Your task to perform on an android device: delete the emails in spam in the gmail app Image 0: 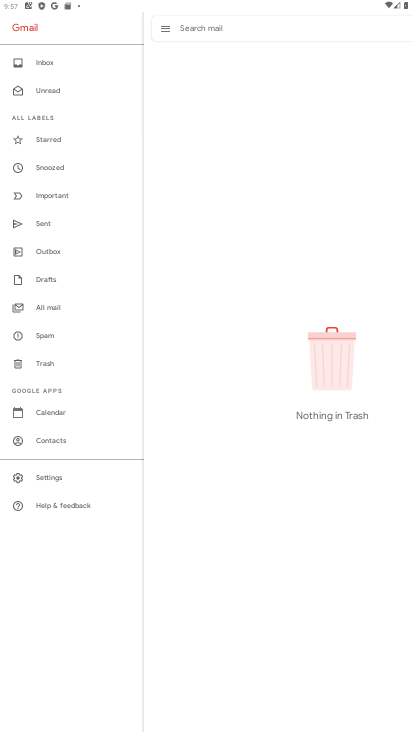
Step 0: click (46, 345)
Your task to perform on an android device: delete the emails in spam in the gmail app Image 1: 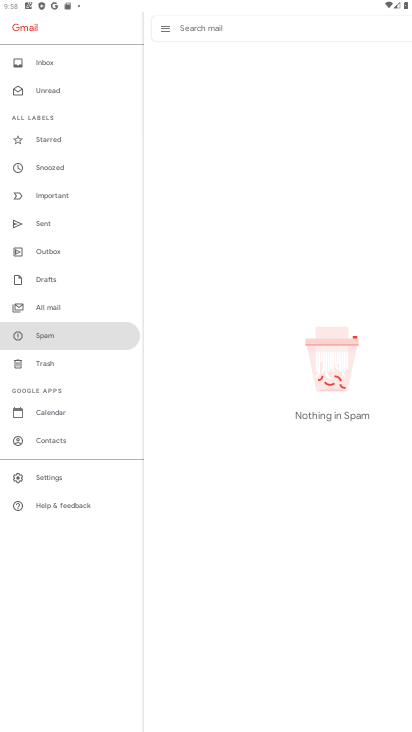
Step 1: task complete